Your task to perform on an android device: turn on the 24-hour format for clock Image 0: 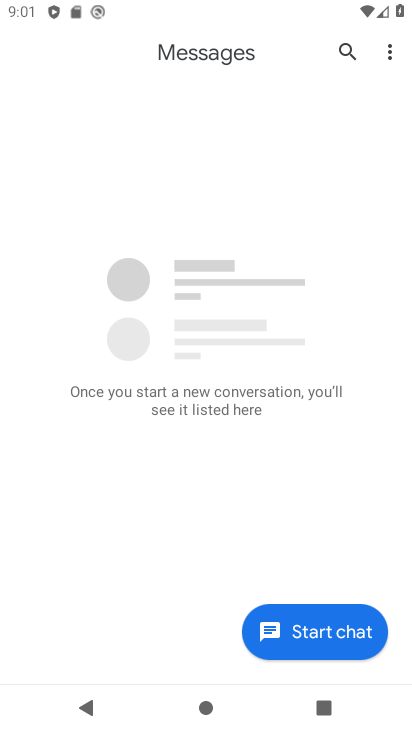
Step 0: press home button
Your task to perform on an android device: turn on the 24-hour format for clock Image 1: 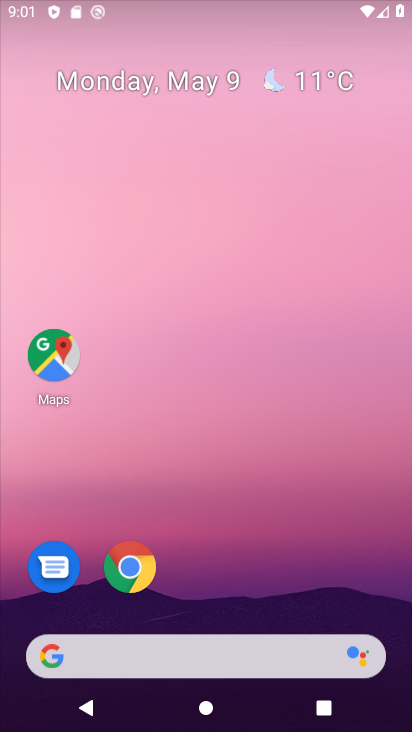
Step 1: drag from (270, 545) to (218, 53)
Your task to perform on an android device: turn on the 24-hour format for clock Image 2: 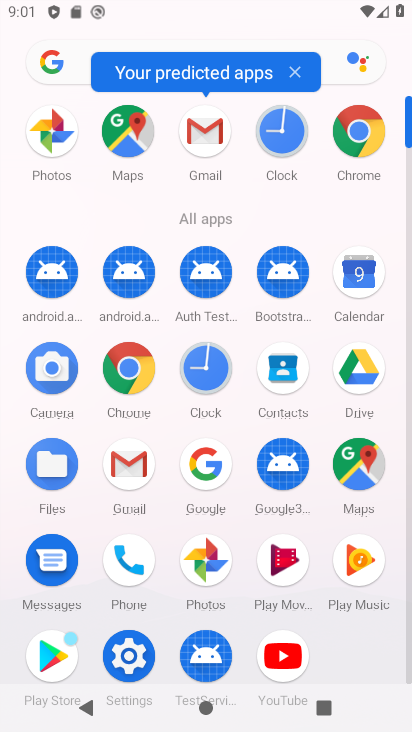
Step 2: click (279, 121)
Your task to perform on an android device: turn on the 24-hour format for clock Image 3: 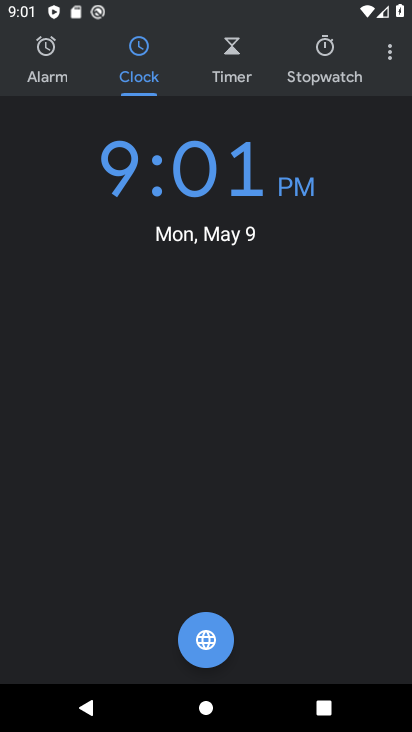
Step 3: click (381, 50)
Your task to perform on an android device: turn on the 24-hour format for clock Image 4: 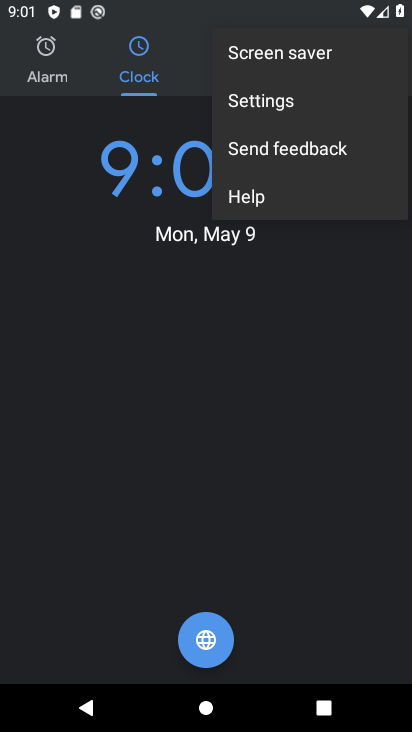
Step 4: click (267, 98)
Your task to perform on an android device: turn on the 24-hour format for clock Image 5: 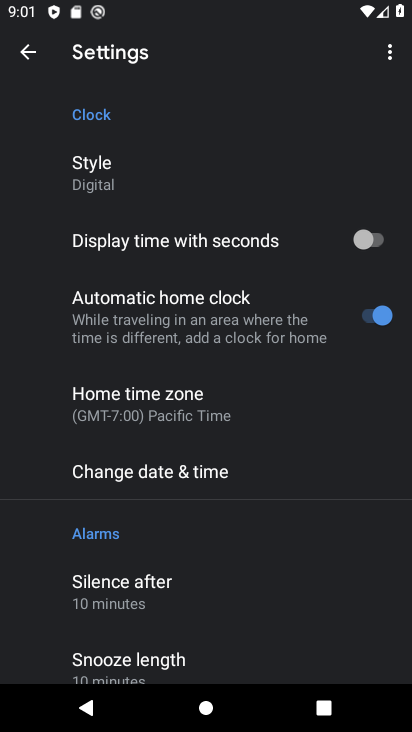
Step 5: click (195, 471)
Your task to perform on an android device: turn on the 24-hour format for clock Image 6: 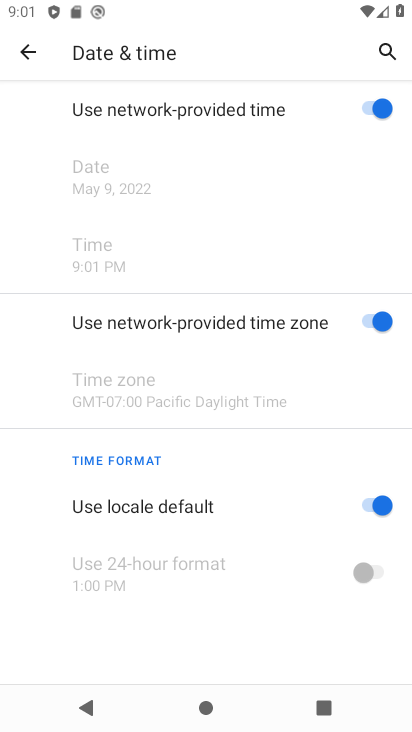
Step 6: click (372, 509)
Your task to perform on an android device: turn on the 24-hour format for clock Image 7: 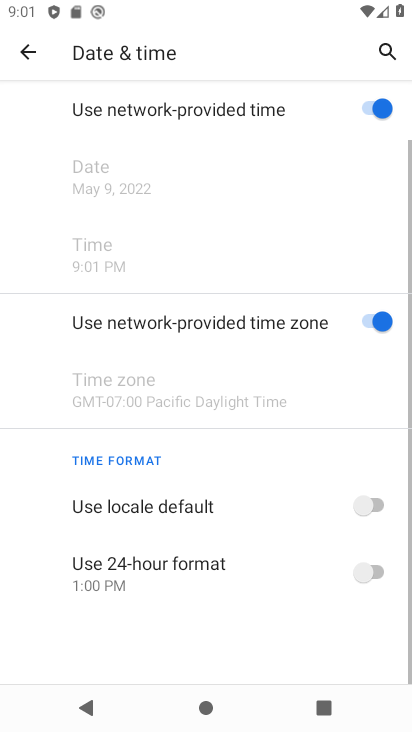
Step 7: click (369, 568)
Your task to perform on an android device: turn on the 24-hour format for clock Image 8: 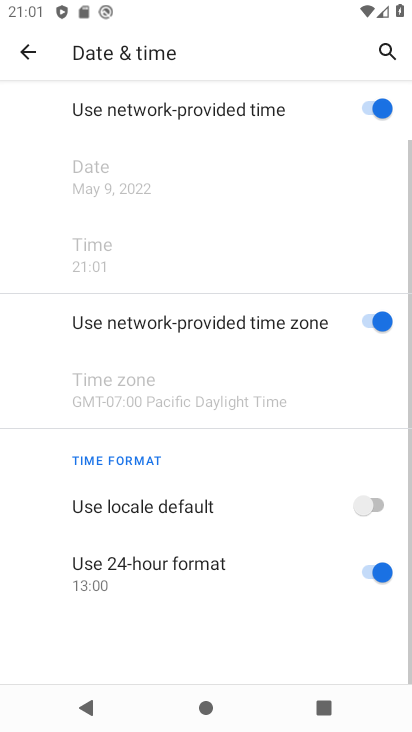
Step 8: task complete